Your task to perform on an android device: Clear the cart on newegg. Search for "logitech g903" on newegg, select the first entry, and add it to the cart. Image 0: 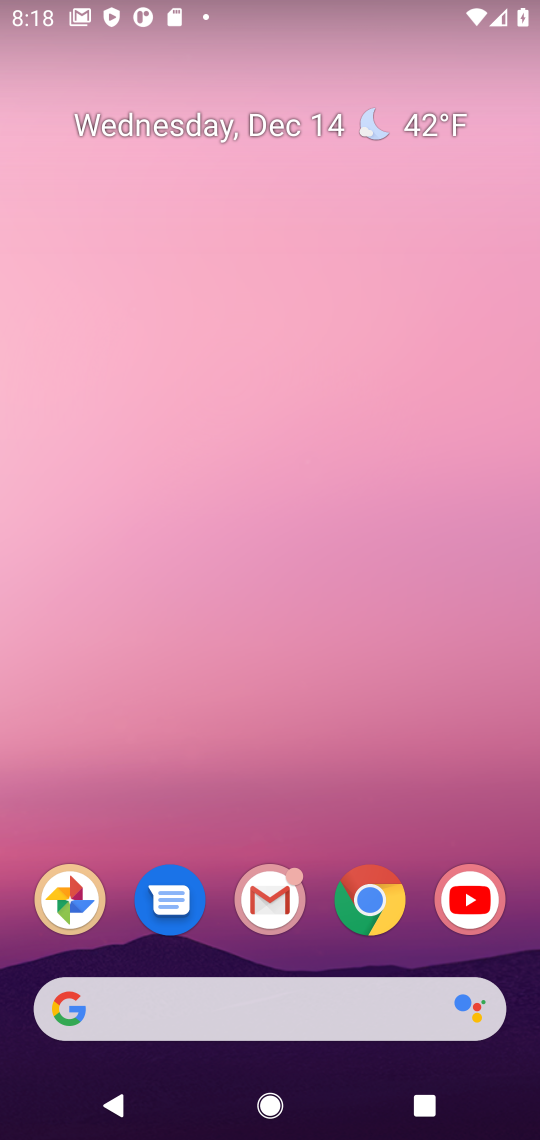
Step 0: click (375, 895)
Your task to perform on an android device: Clear the cart on newegg. Search for "logitech g903" on newegg, select the first entry, and add it to the cart. Image 1: 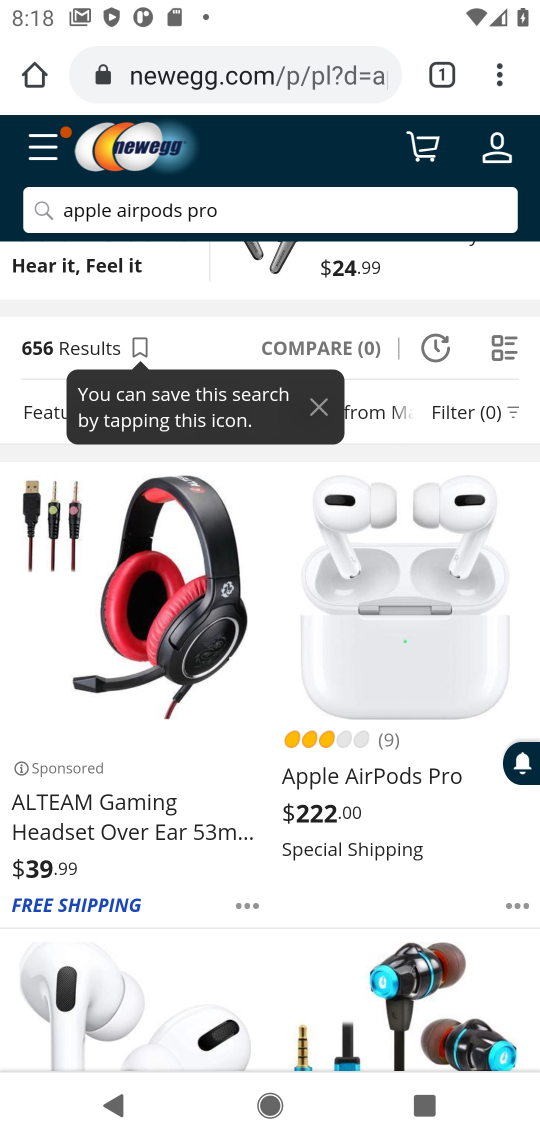
Step 1: click (419, 159)
Your task to perform on an android device: Clear the cart on newegg. Search for "logitech g903" on newegg, select the first entry, and add it to the cart. Image 2: 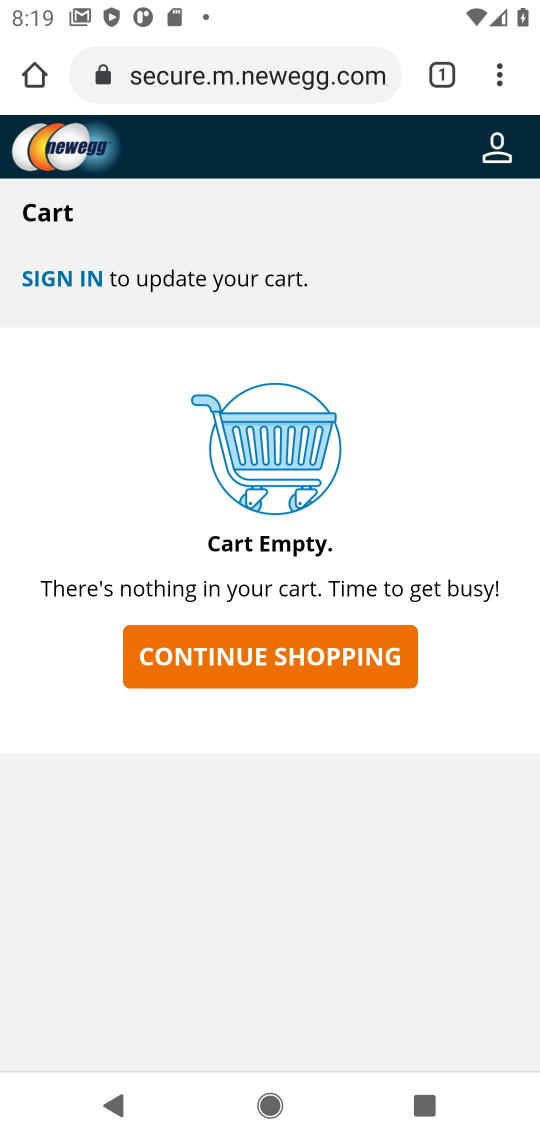
Step 2: click (222, 642)
Your task to perform on an android device: Clear the cart on newegg. Search for "logitech g903" on newegg, select the first entry, and add it to the cart. Image 3: 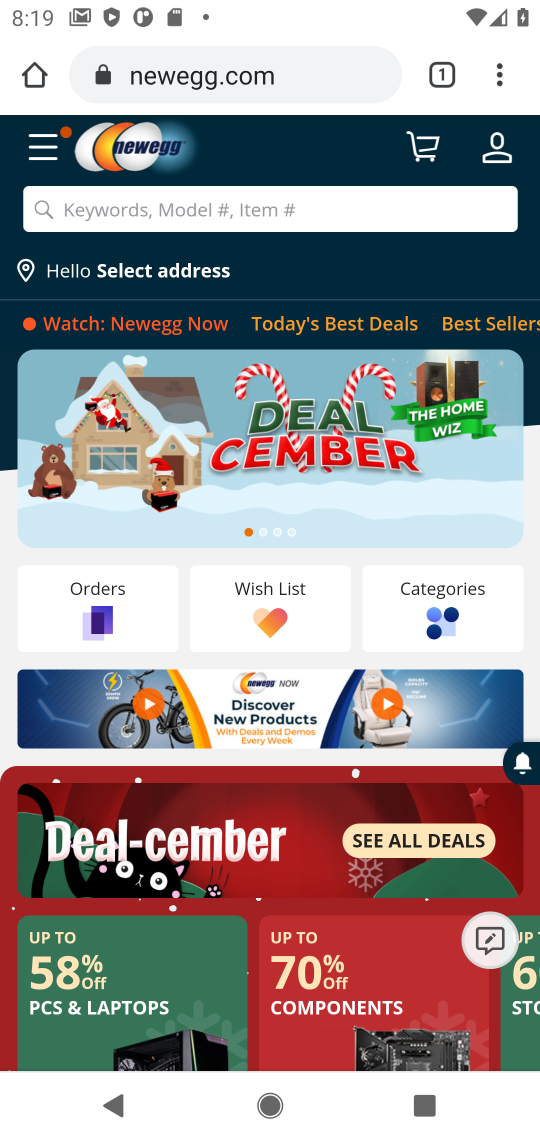
Step 3: click (203, 220)
Your task to perform on an android device: Clear the cart on newegg. Search for "logitech g903" on newegg, select the first entry, and add it to the cart. Image 4: 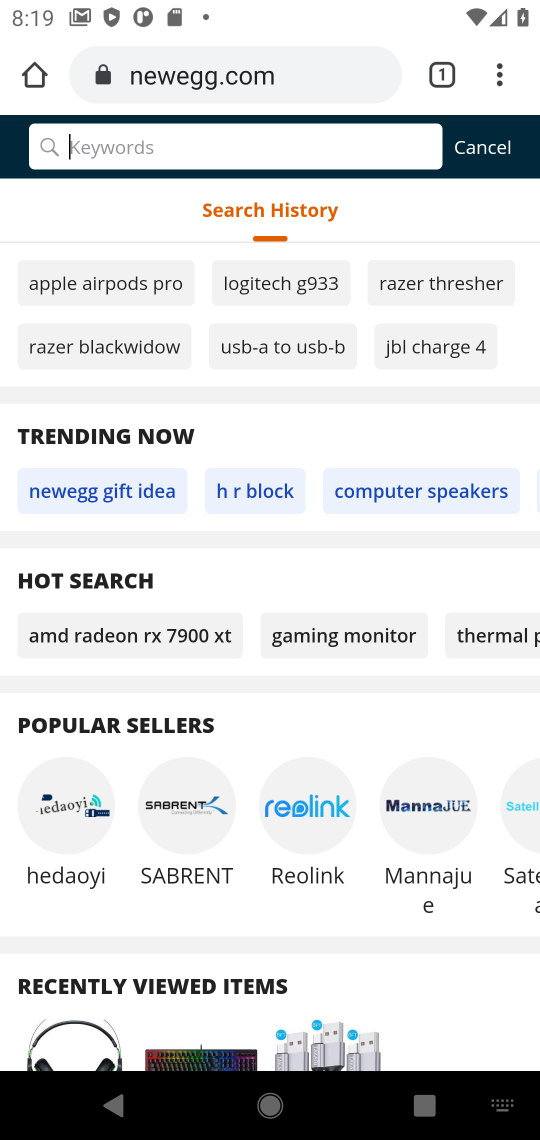
Step 4: type "logitech g903"
Your task to perform on an android device: Clear the cart on newegg. Search for "logitech g903" on newegg, select the first entry, and add it to the cart. Image 5: 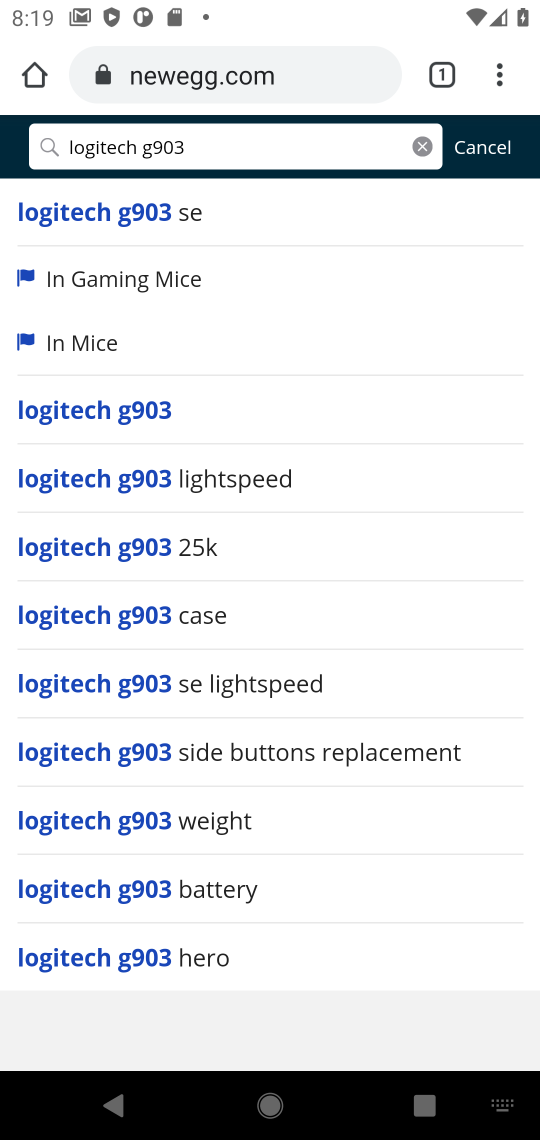
Step 5: click (90, 424)
Your task to perform on an android device: Clear the cart on newegg. Search for "logitech g903" on newegg, select the first entry, and add it to the cart. Image 6: 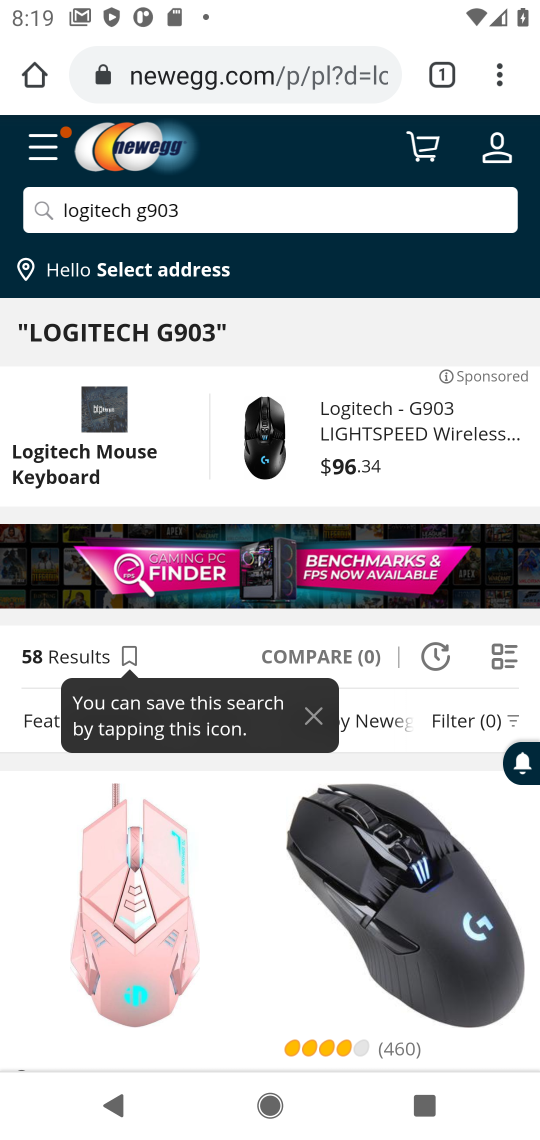
Step 6: task complete